Your task to perform on an android device: What's on my calendar tomorrow? Image 0: 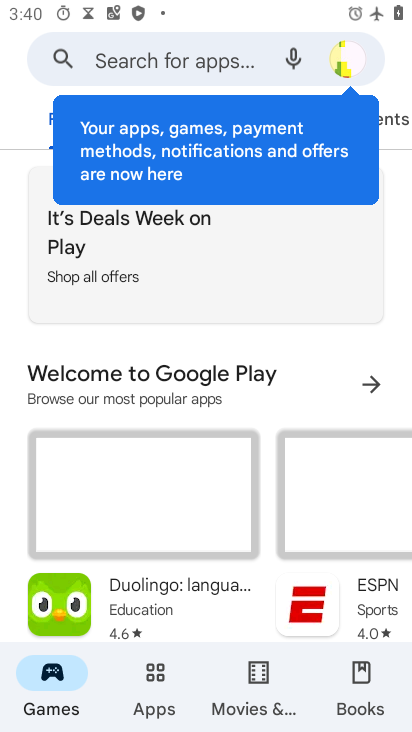
Step 0: press back button
Your task to perform on an android device: What's on my calendar tomorrow? Image 1: 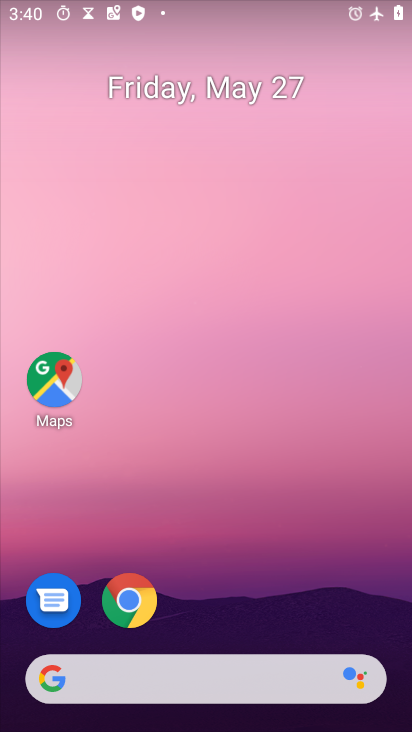
Step 1: drag from (232, 496) to (243, 44)
Your task to perform on an android device: What's on my calendar tomorrow? Image 2: 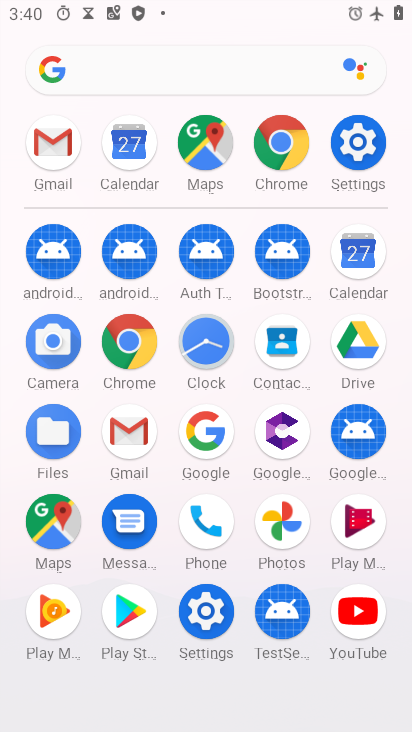
Step 2: drag from (2, 523) to (19, 173)
Your task to perform on an android device: What's on my calendar tomorrow? Image 3: 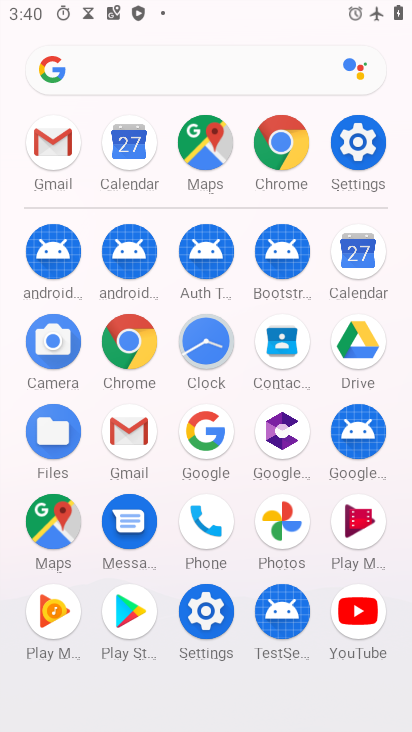
Step 3: click (352, 249)
Your task to perform on an android device: What's on my calendar tomorrow? Image 4: 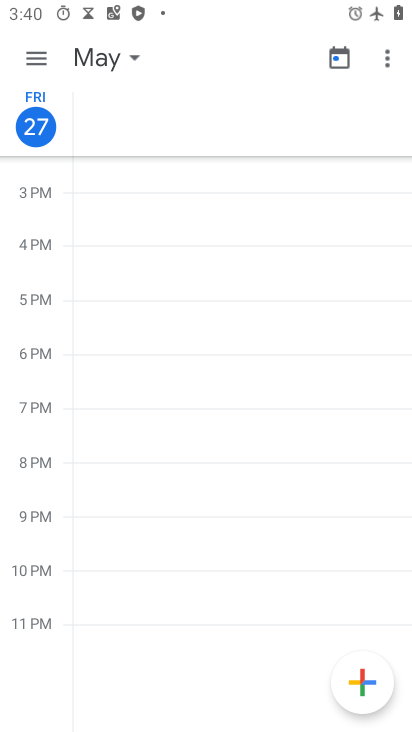
Step 4: task complete